Your task to perform on an android device: open a new tab in the chrome app Image 0: 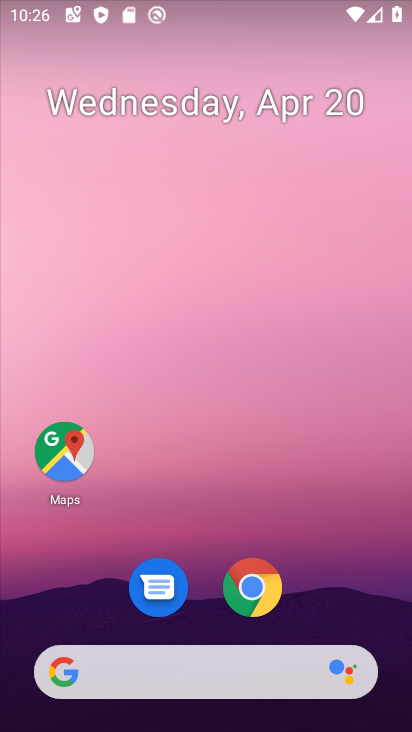
Step 0: drag from (207, 619) to (246, 72)
Your task to perform on an android device: open a new tab in the chrome app Image 1: 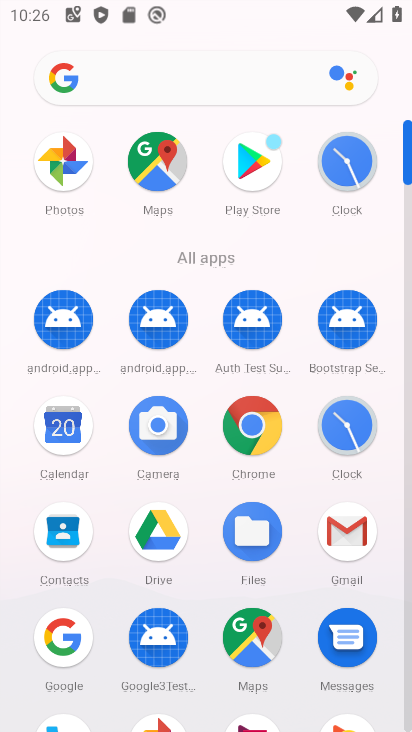
Step 1: click (249, 418)
Your task to perform on an android device: open a new tab in the chrome app Image 2: 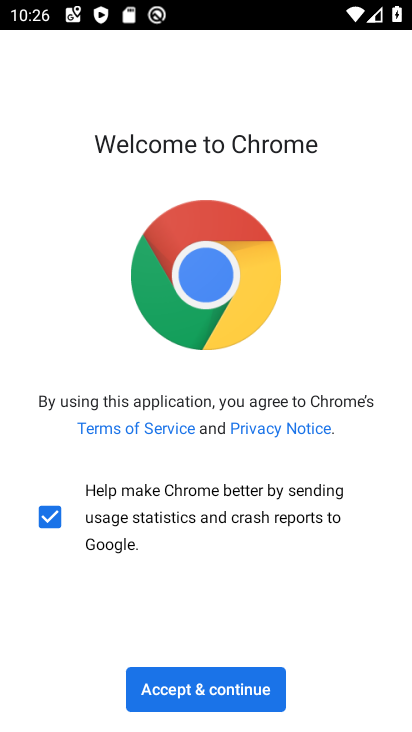
Step 2: click (198, 681)
Your task to perform on an android device: open a new tab in the chrome app Image 3: 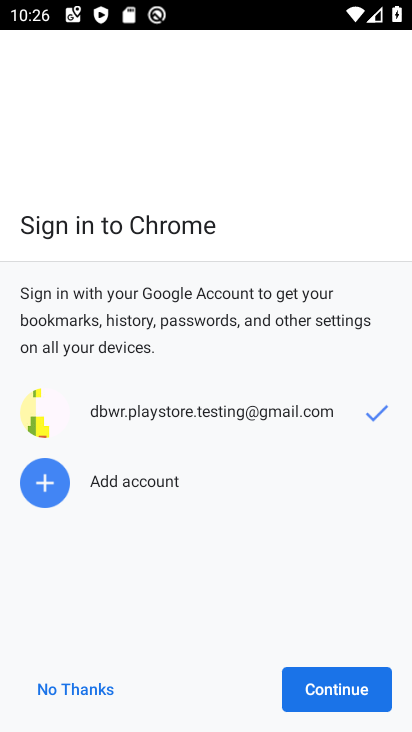
Step 3: click (340, 682)
Your task to perform on an android device: open a new tab in the chrome app Image 4: 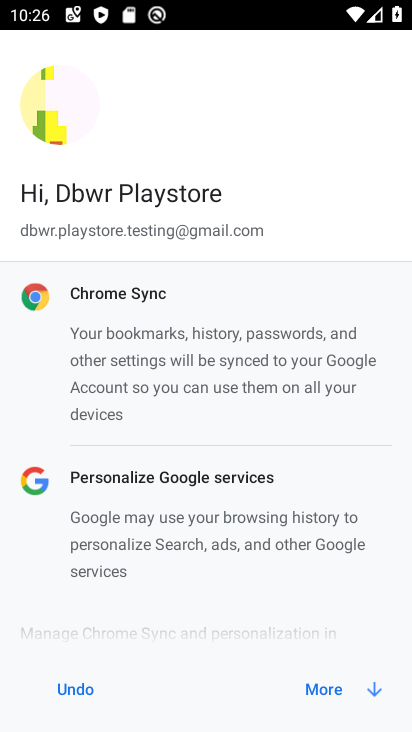
Step 4: click (332, 683)
Your task to perform on an android device: open a new tab in the chrome app Image 5: 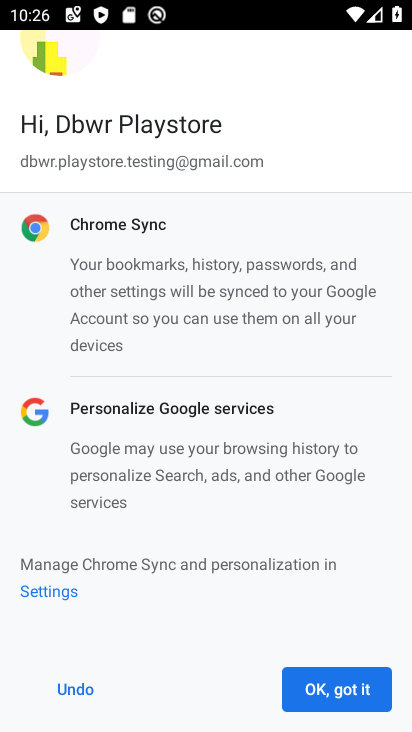
Step 5: click (332, 683)
Your task to perform on an android device: open a new tab in the chrome app Image 6: 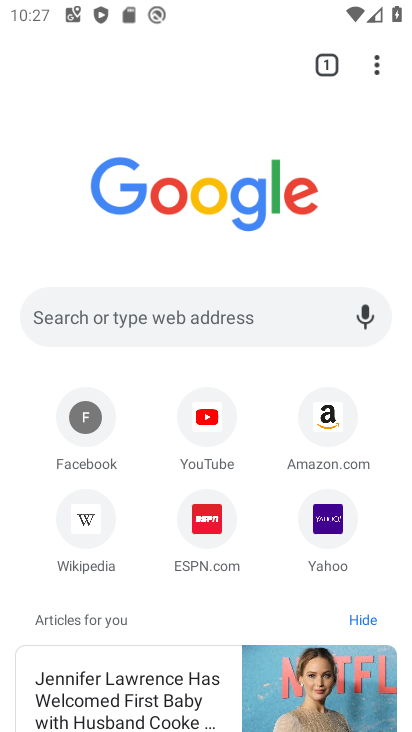
Step 6: click (321, 62)
Your task to perform on an android device: open a new tab in the chrome app Image 7: 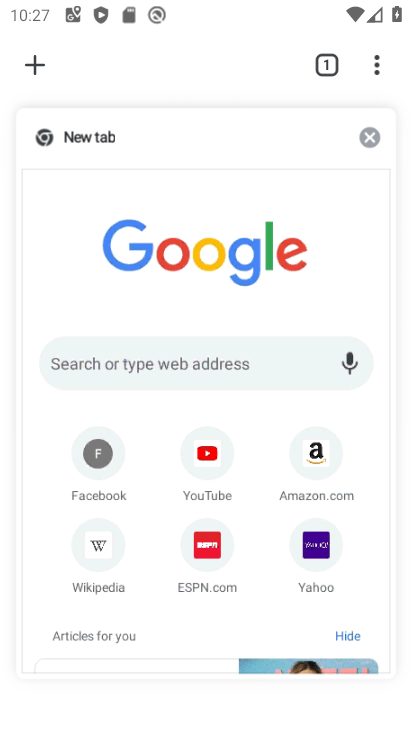
Step 7: click (27, 65)
Your task to perform on an android device: open a new tab in the chrome app Image 8: 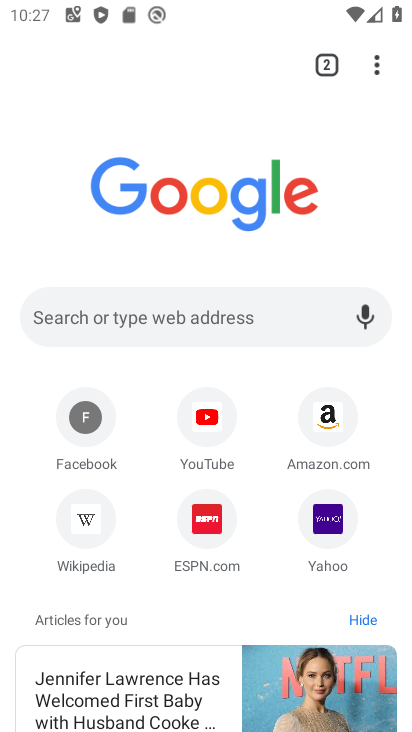
Step 8: task complete